Your task to perform on an android device: choose inbox layout in the gmail app Image 0: 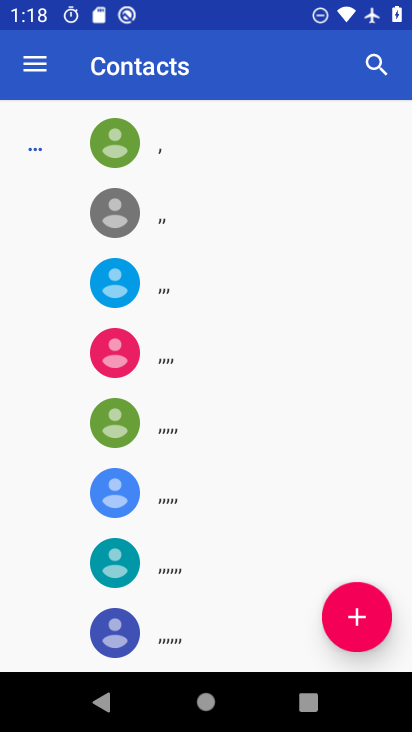
Step 0: press home button
Your task to perform on an android device: choose inbox layout in the gmail app Image 1: 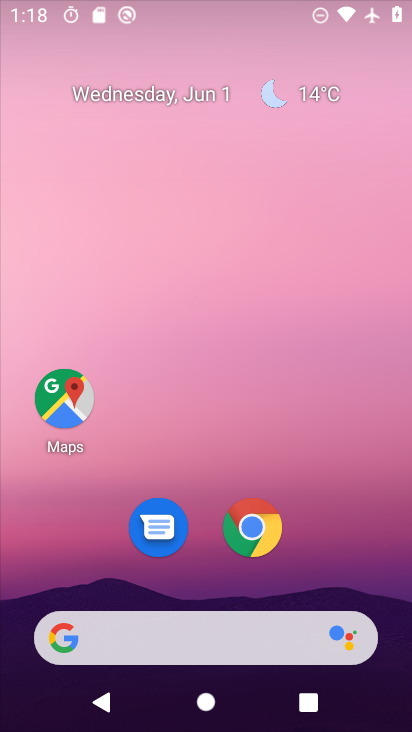
Step 1: drag from (325, 660) to (293, 96)
Your task to perform on an android device: choose inbox layout in the gmail app Image 2: 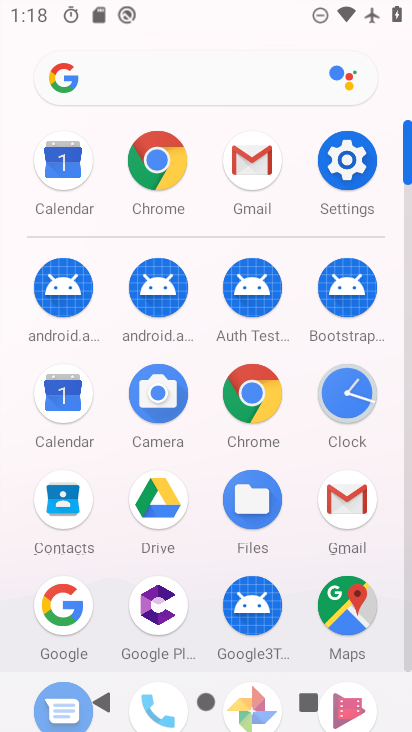
Step 2: drag from (230, 498) to (268, 200)
Your task to perform on an android device: choose inbox layout in the gmail app Image 3: 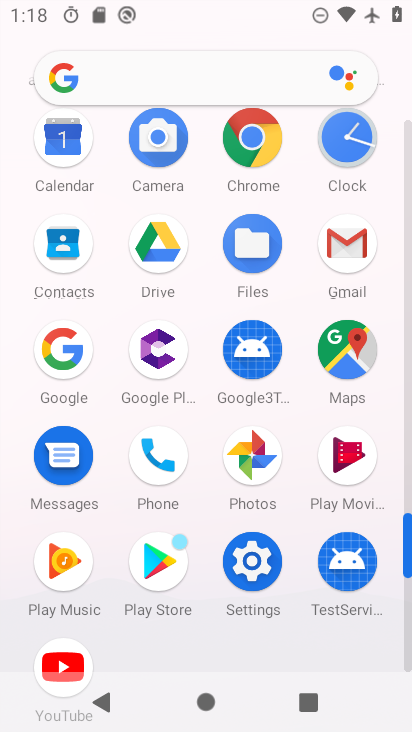
Step 3: click (353, 259)
Your task to perform on an android device: choose inbox layout in the gmail app Image 4: 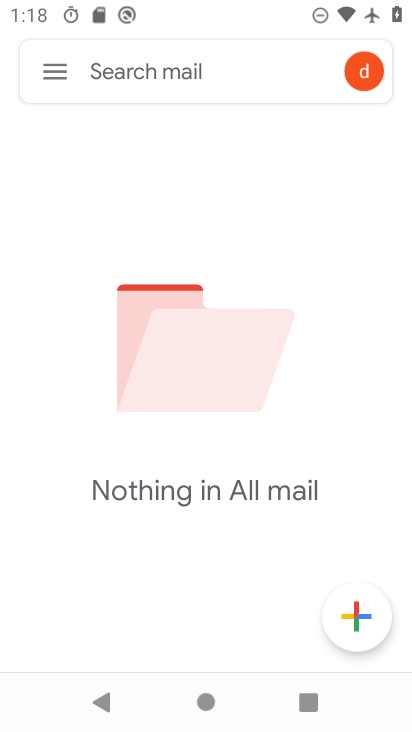
Step 4: click (51, 81)
Your task to perform on an android device: choose inbox layout in the gmail app Image 5: 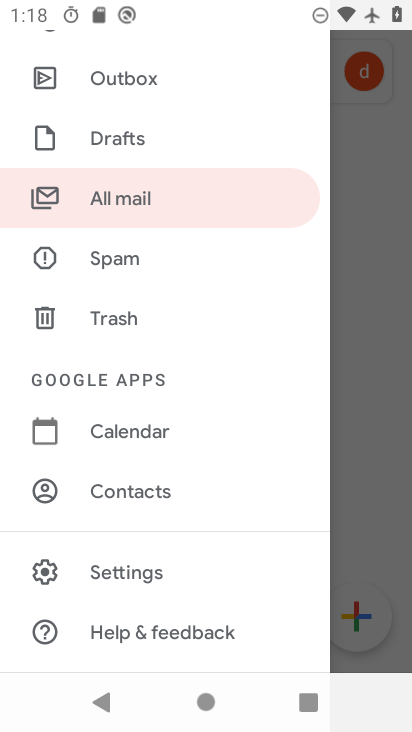
Step 5: drag from (117, 478) to (174, 272)
Your task to perform on an android device: choose inbox layout in the gmail app Image 6: 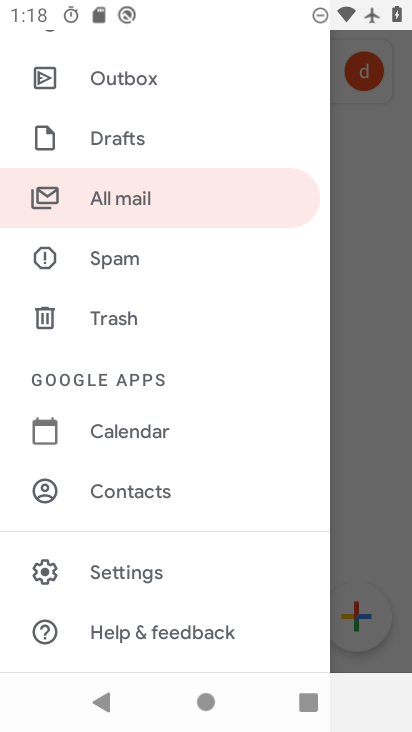
Step 6: click (157, 571)
Your task to perform on an android device: choose inbox layout in the gmail app Image 7: 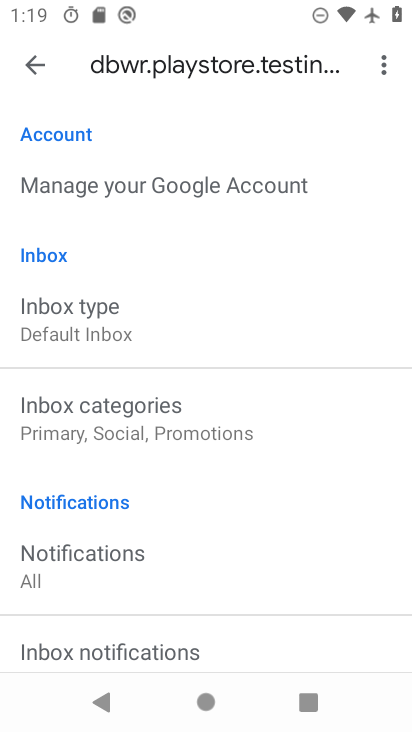
Step 7: task complete